Your task to perform on an android device: Open CNN.com Image 0: 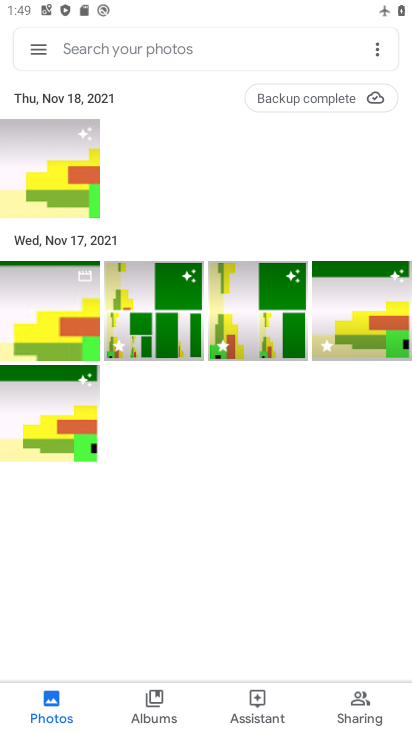
Step 0: press home button
Your task to perform on an android device: Open CNN.com Image 1: 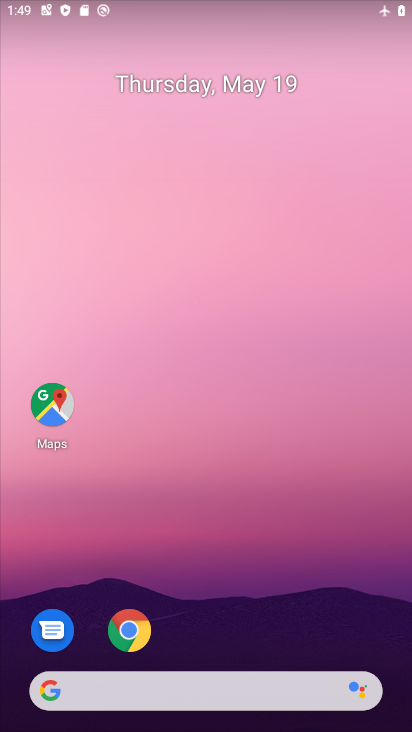
Step 1: click (128, 623)
Your task to perform on an android device: Open CNN.com Image 2: 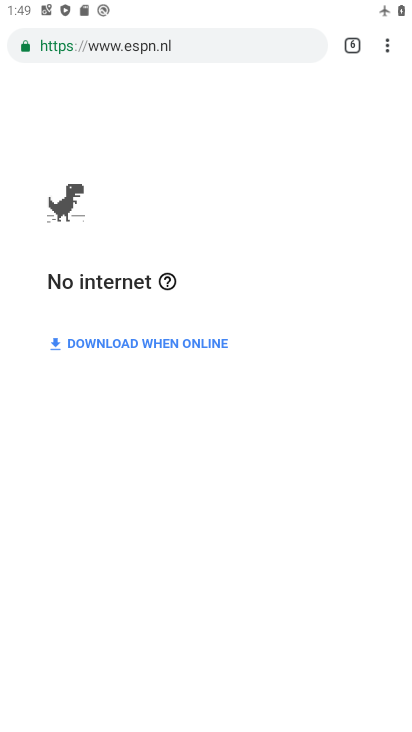
Step 2: click (351, 49)
Your task to perform on an android device: Open CNN.com Image 3: 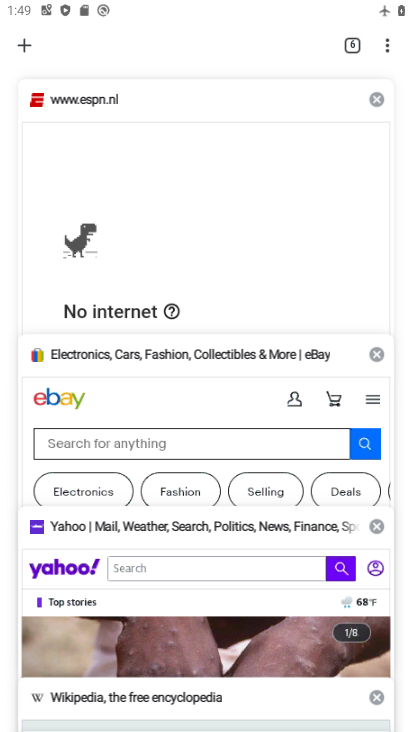
Step 3: drag from (166, 199) to (129, 548)
Your task to perform on an android device: Open CNN.com Image 4: 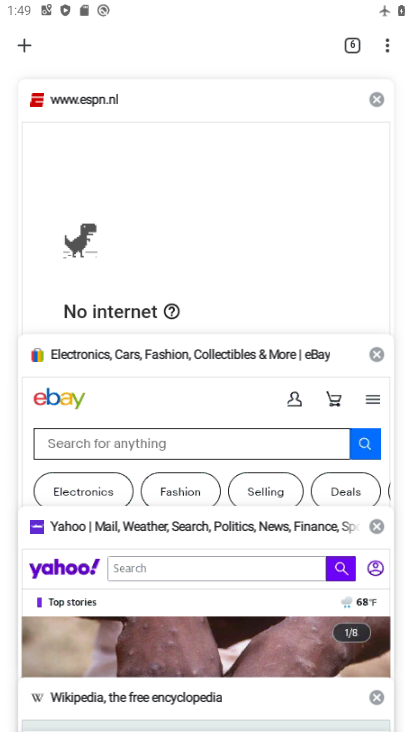
Step 4: drag from (131, 543) to (112, 0)
Your task to perform on an android device: Open CNN.com Image 5: 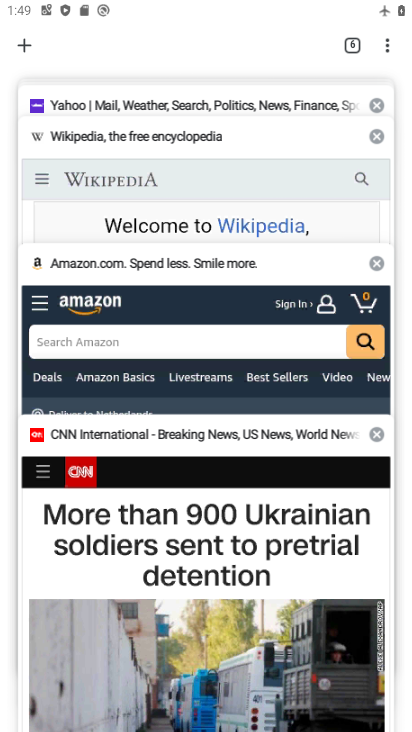
Step 5: click (85, 449)
Your task to perform on an android device: Open CNN.com Image 6: 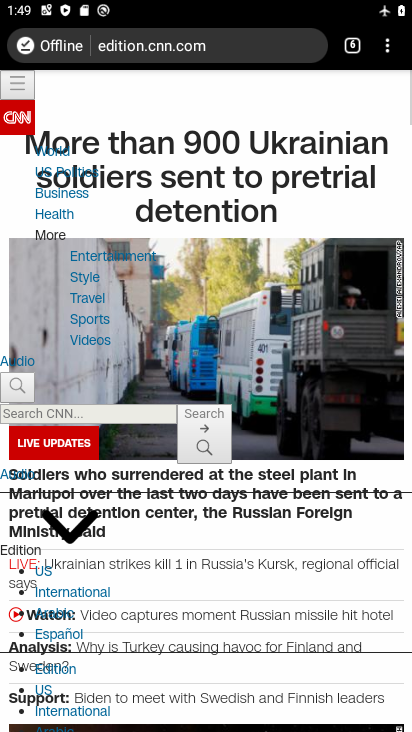
Step 6: task complete